Your task to perform on an android device: install app "Duolingo: language lessons" Image 0: 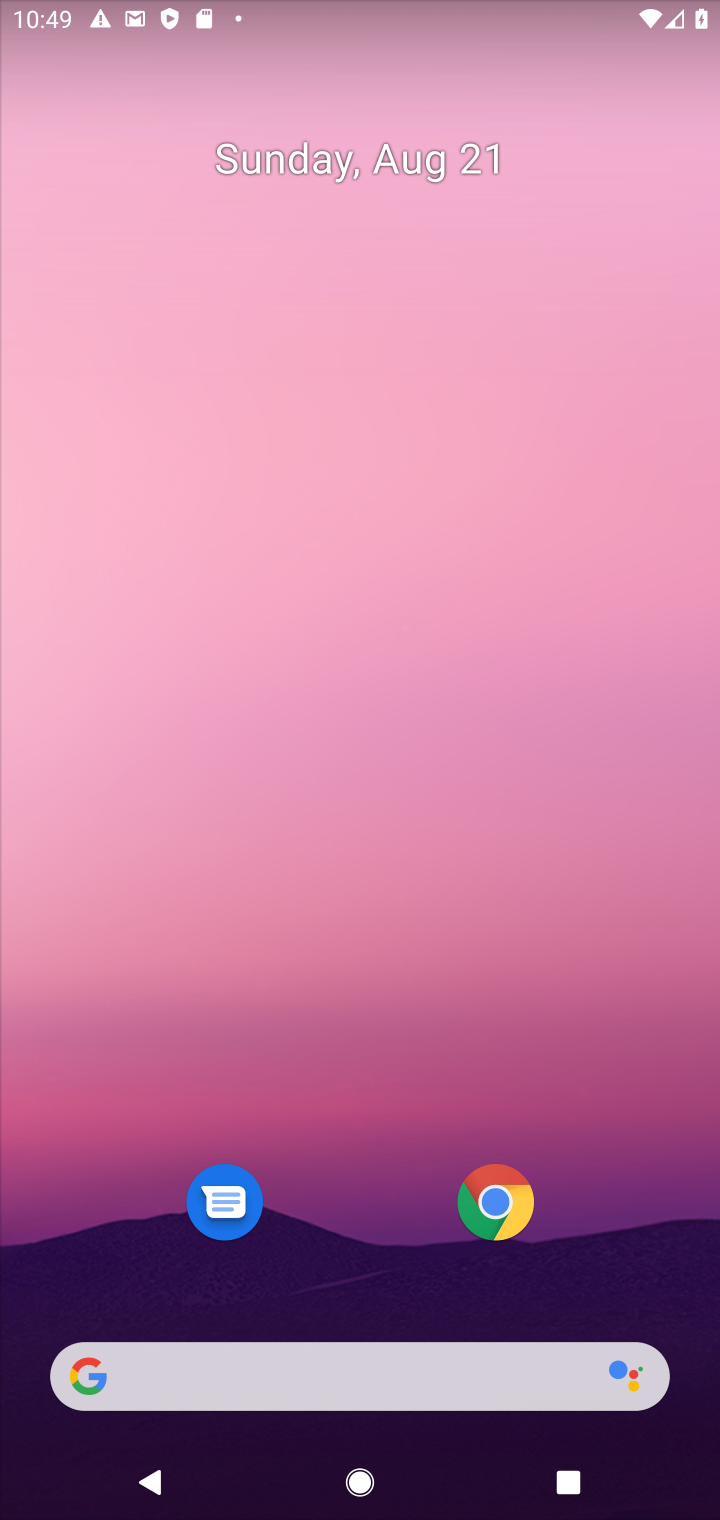
Step 0: drag from (363, 634) to (363, 110)
Your task to perform on an android device: install app "Duolingo: language lessons" Image 1: 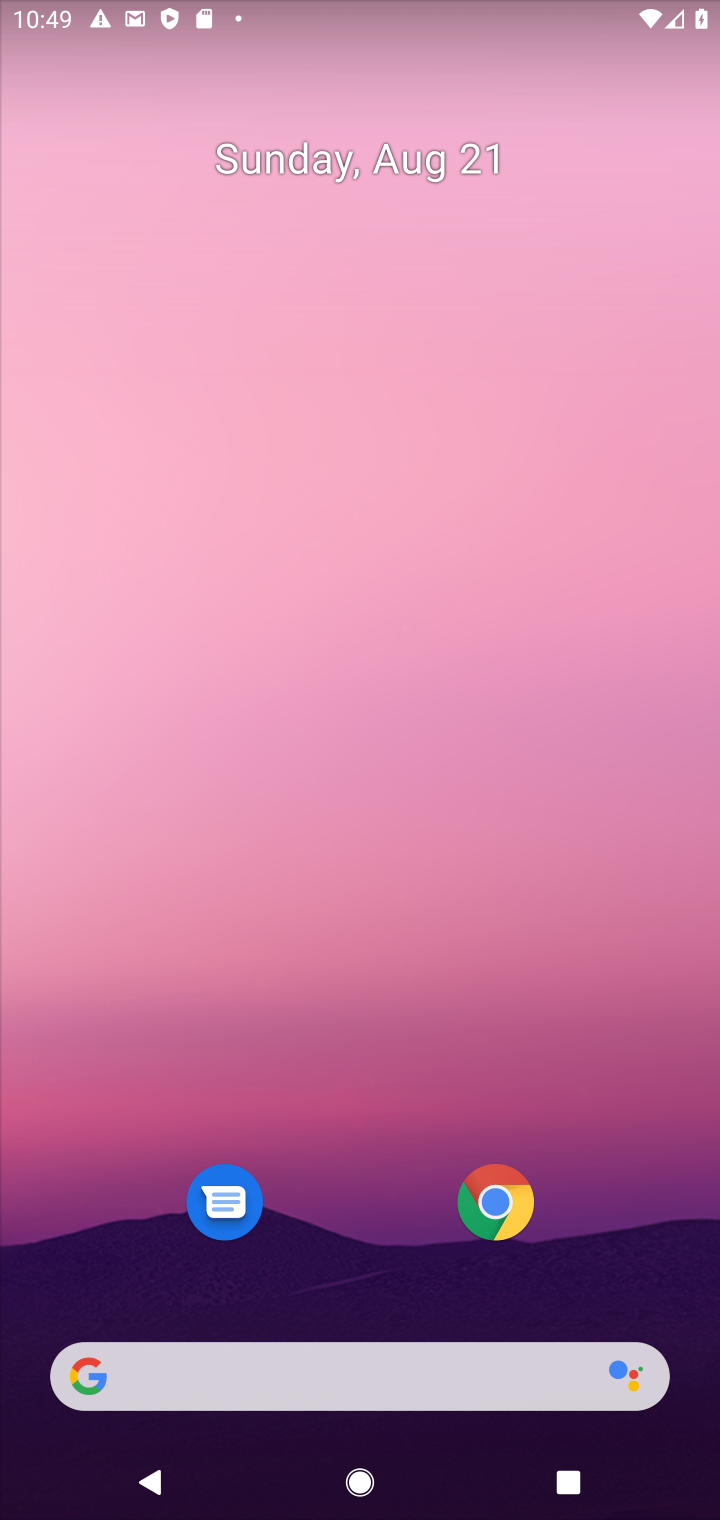
Step 1: drag from (316, 576) to (310, 48)
Your task to perform on an android device: install app "Duolingo: language lessons" Image 2: 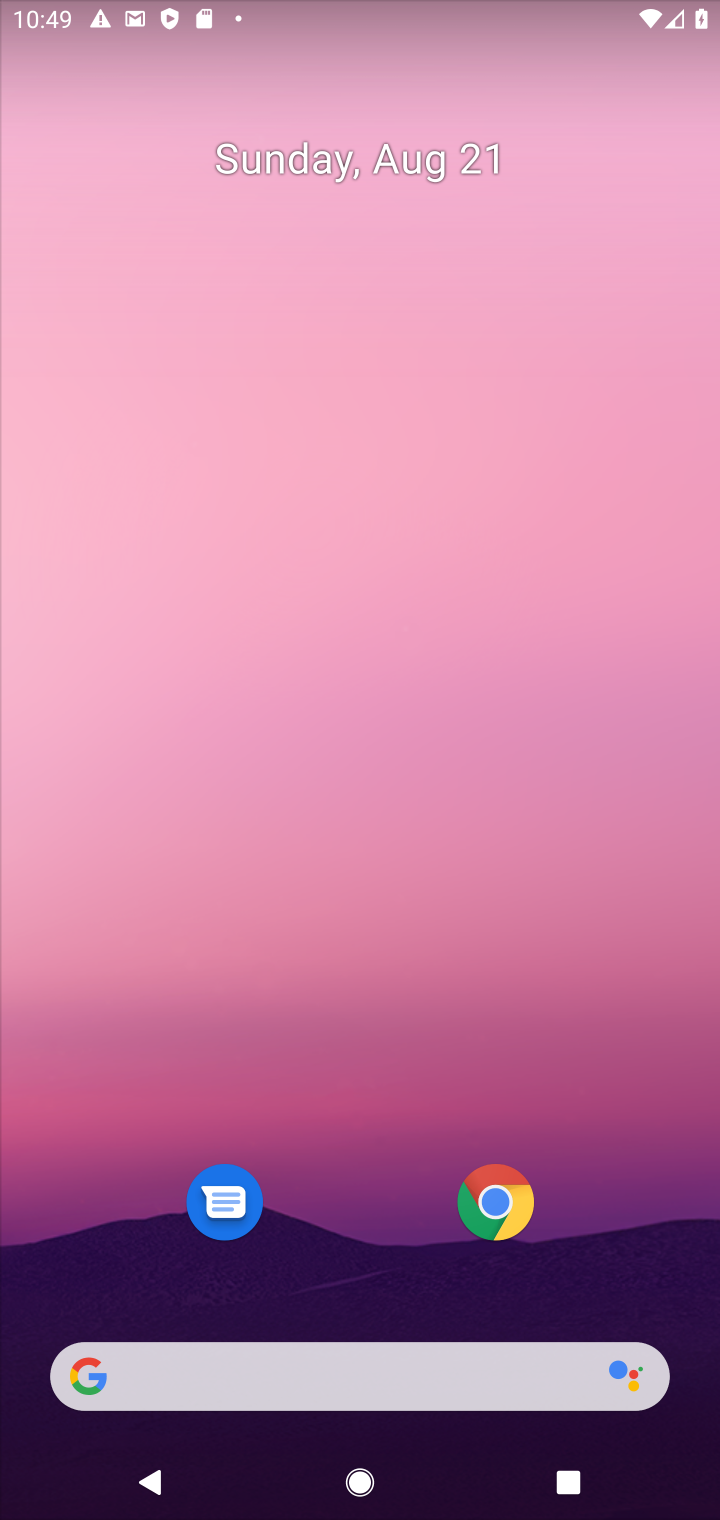
Step 2: drag from (360, 966) to (337, 25)
Your task to perform on an android device: install app "Duolingo: language lessons" Image 3: 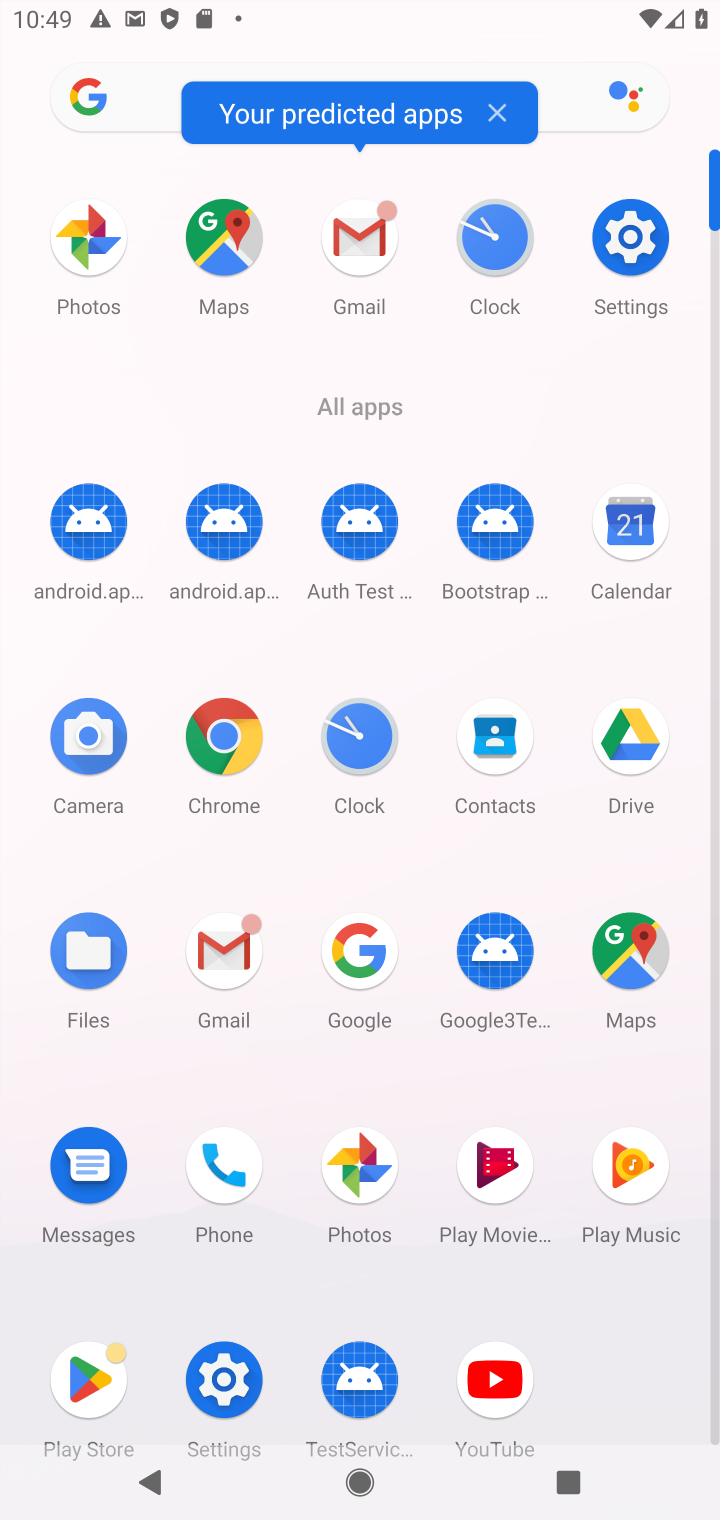
Step 3: click (71, 1371)
Your task to perform on an android device: install app "Duolingo: language lessons" Image 4: 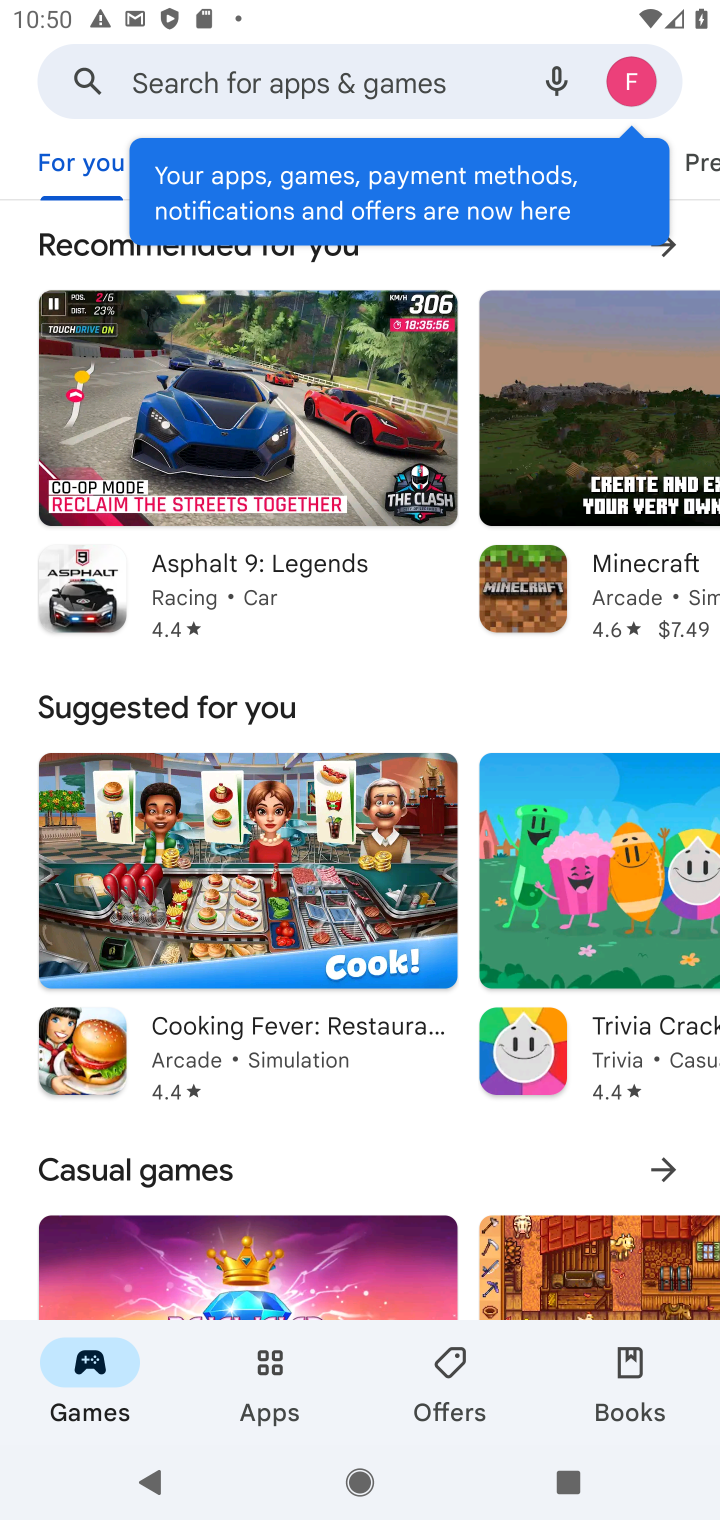
Step 4: click (337, 89)
Your task to perform on an android device: install app "Duolingo: language lessons" Image 5: 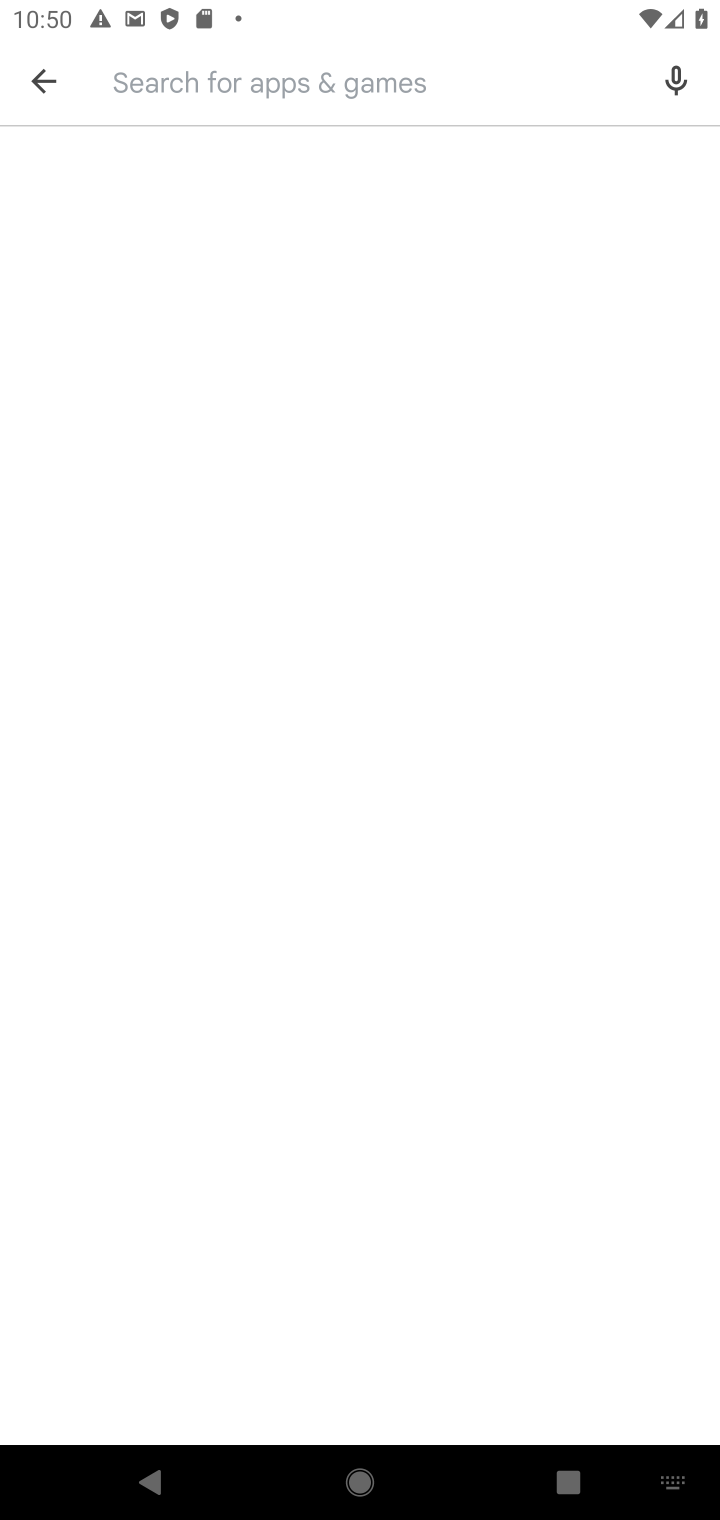
Step 5: type "Duolingo: language lessons"
Your task to perform on an android device: install app "Duolingo: language lessons" Image 6: 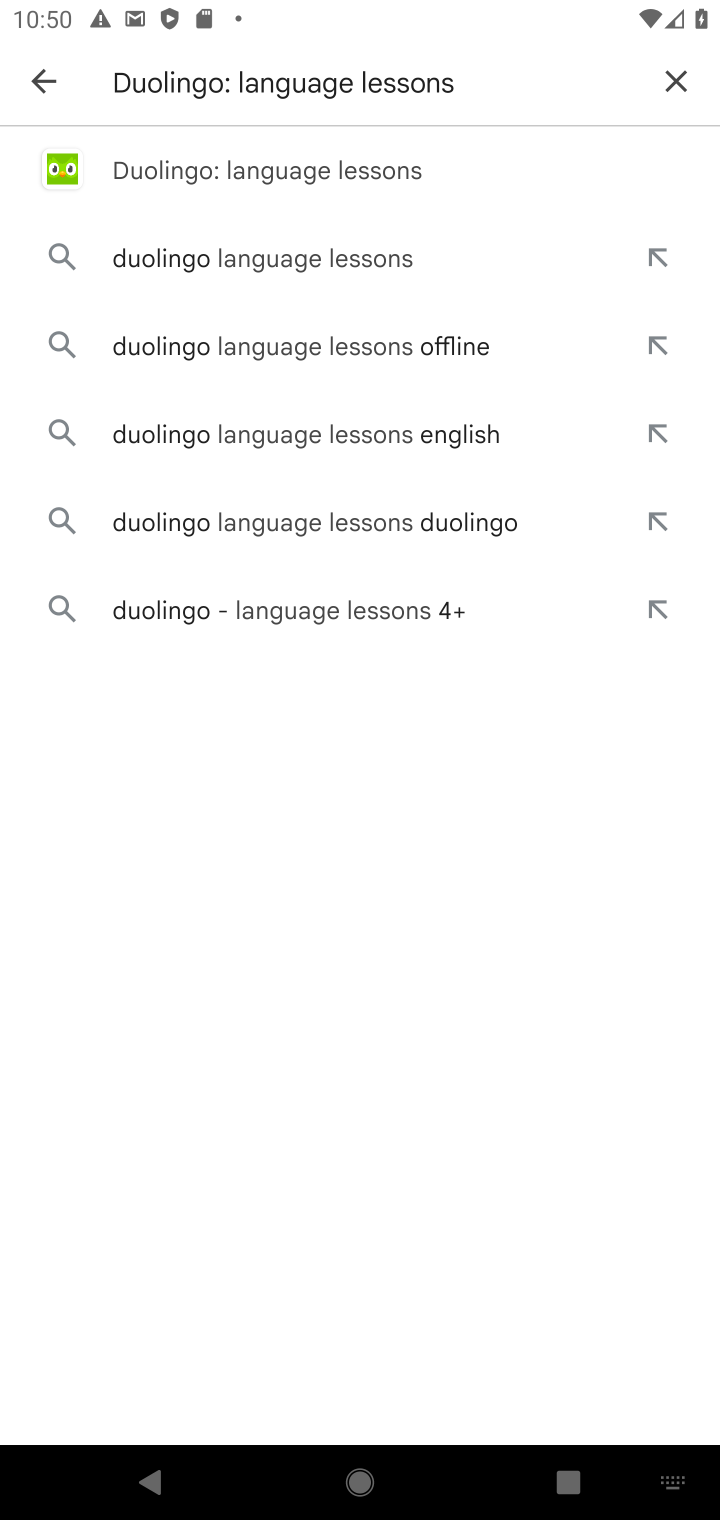
Step 6: click (278, 170)
Your task to perform on an android device: install app "Duolingo: language lessons" Image 7: 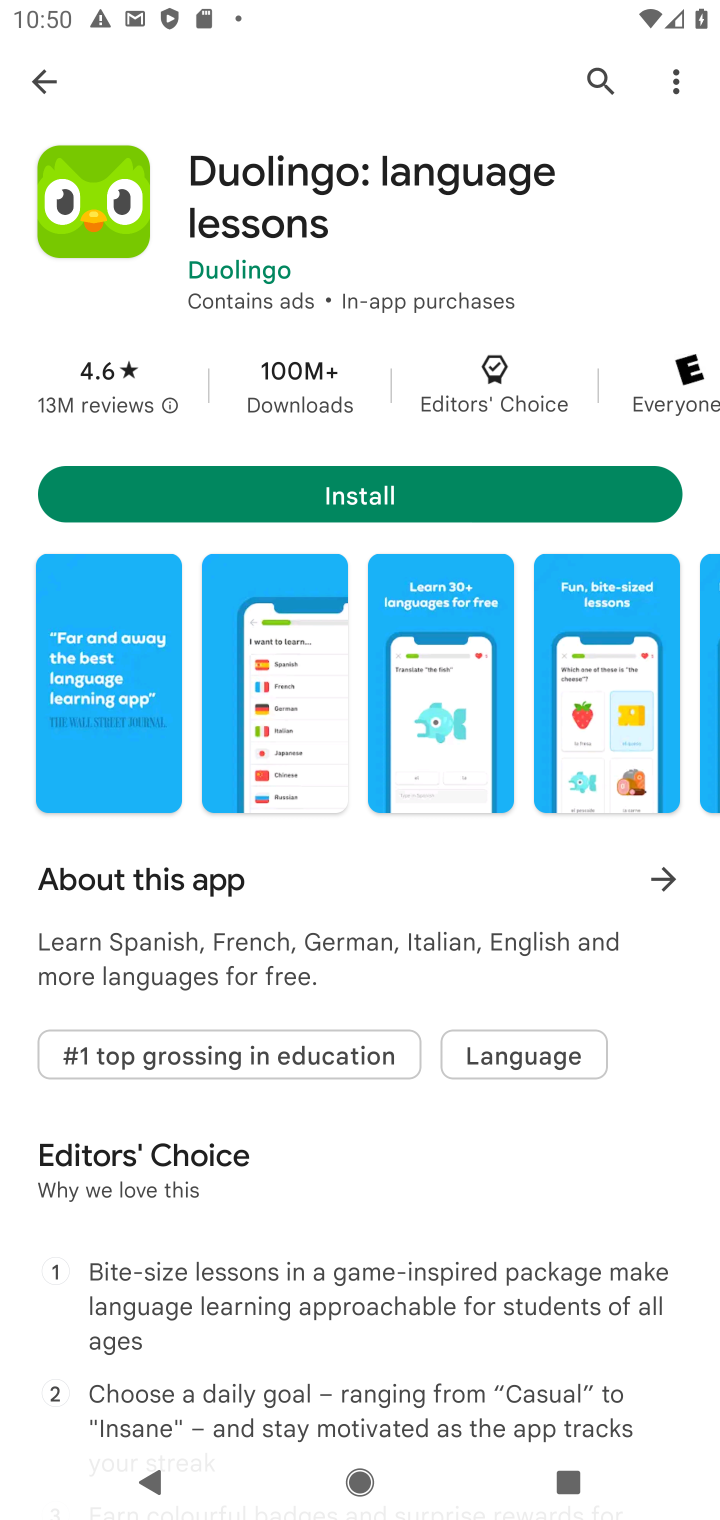
Step 7: click (368, 496)
Your task to perform on an android device: install app "Duolingo: language lessons" Image 8: 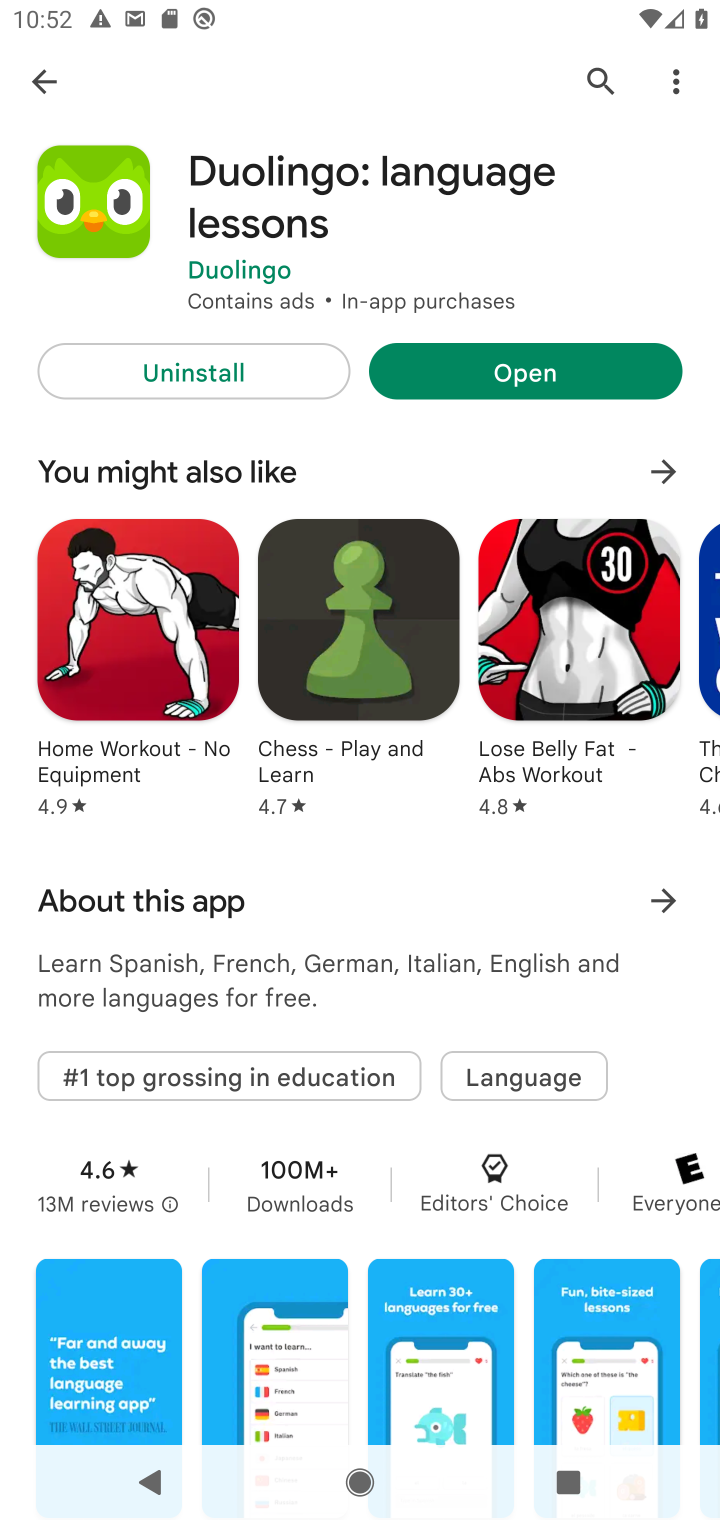
Step 8: task complete